Your task to perform on an android device: turn off smart reply in the gmail app Image 0: 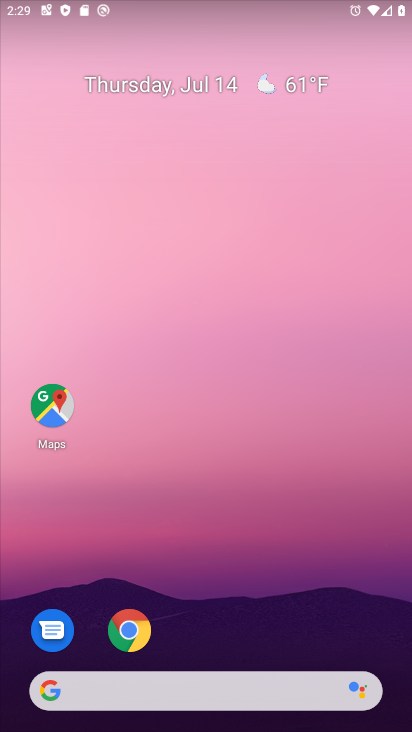
Step 0: press home button
Your task to perform on an android device: turn off smart reply in the gmail app Image 1: 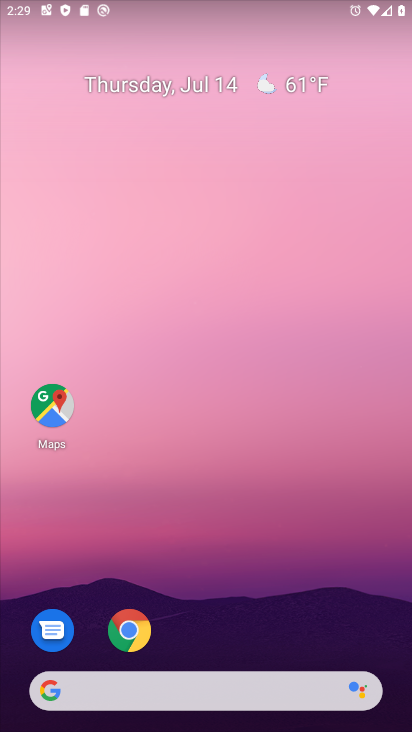
Step 1: drag from (182, 693) to (307, 155)
Your task to perform on an android device: turn off smart reply in the gmail app Image 2: 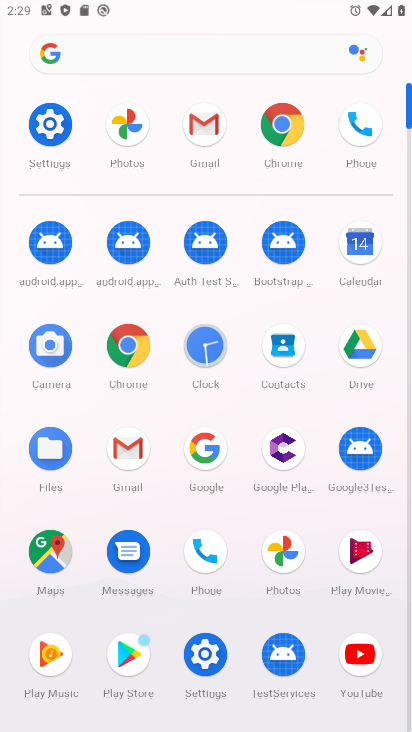
Step 2: click (201, 137)
Your task to perform on an android device: turn off smart reply in the gmail app Image 3: 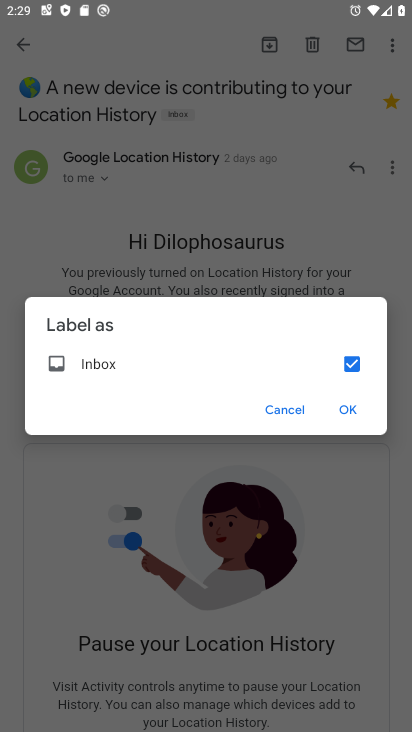
Step 3: click (23, 38)
Your task to perform on an android device: turn off smart reply in the gmail app Image 4: 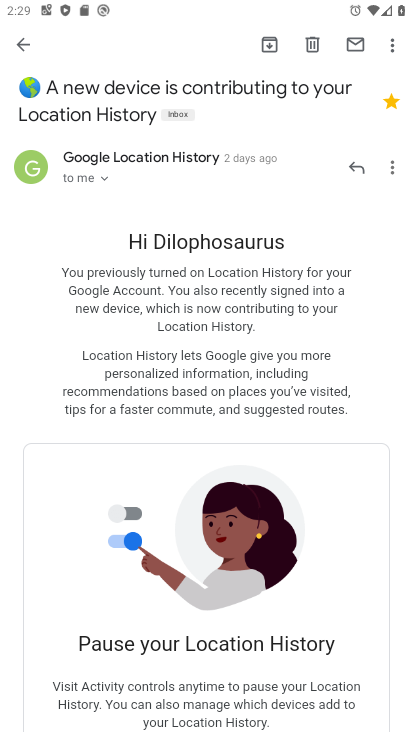
Step 4: click (23, 48)
Your task to perform on an android device: turn off smart reply in the gmail app Image 5: 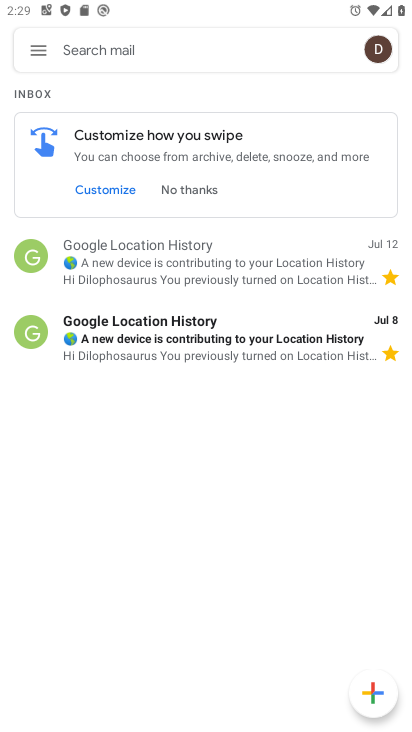
Step 5: click (33, 49)
Your task to perform on an android device: turn off smart reply in the gmail app Image 6: 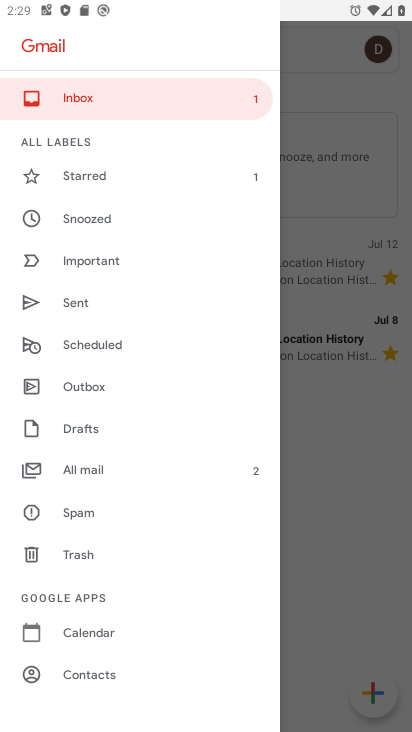
Step 6: drag from (130, 663) to (259, 150)
Your task to perform on an android device: turn off smart reply in the gmail app Image 7: 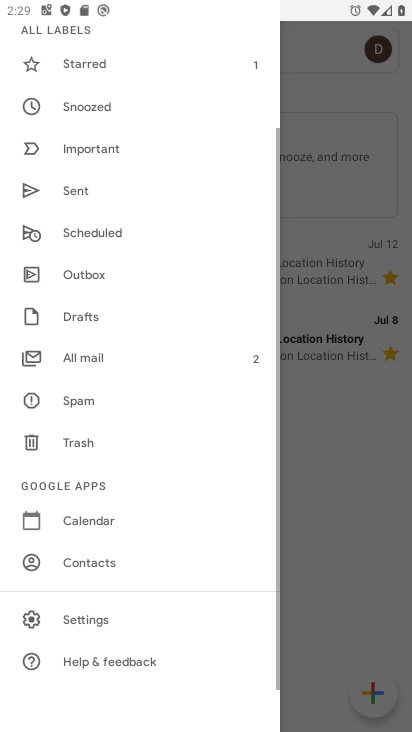
Step 7: click (87, 621)
Your task to perform on an android device: turn off smart reply in the gmail app Image 8: 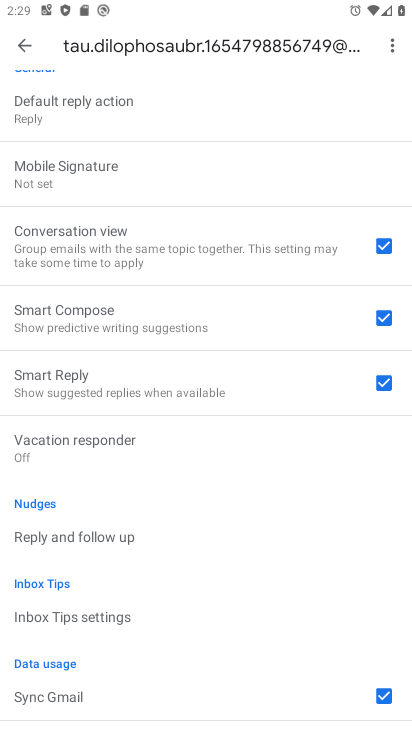
Step 8: drag from (172, 588) to (302, 168)
Your task to perform on an android device: turn off smart reply in the gmail app Image 9: 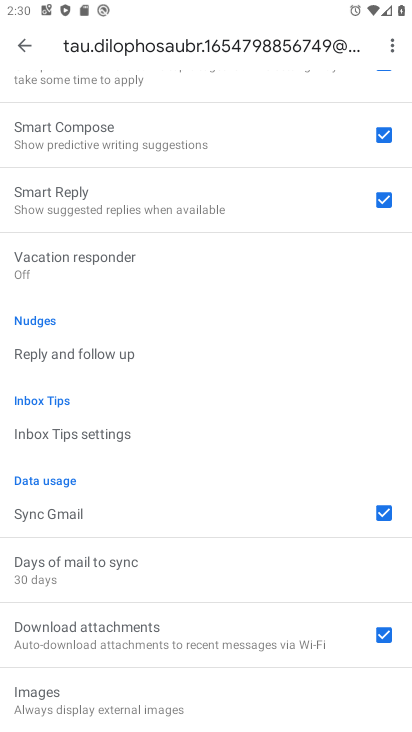
Step 9: click (384, 197)
Your task to perform on an android device: turn off smart reply in the gmail app Image 10: 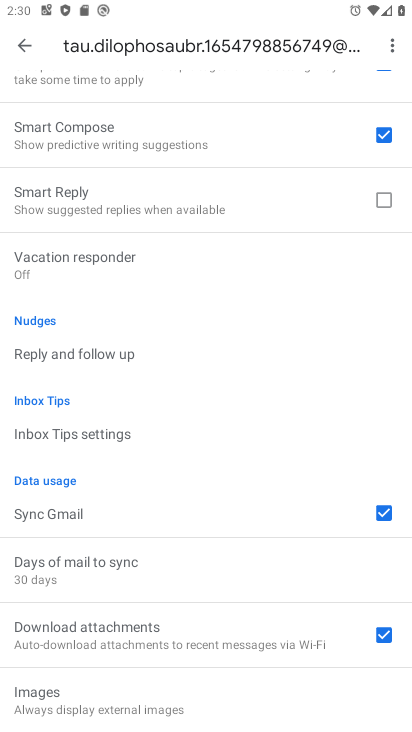
Step 10: task complete